Your task to perform on an android device: change your default location settings in chrome Image 0: 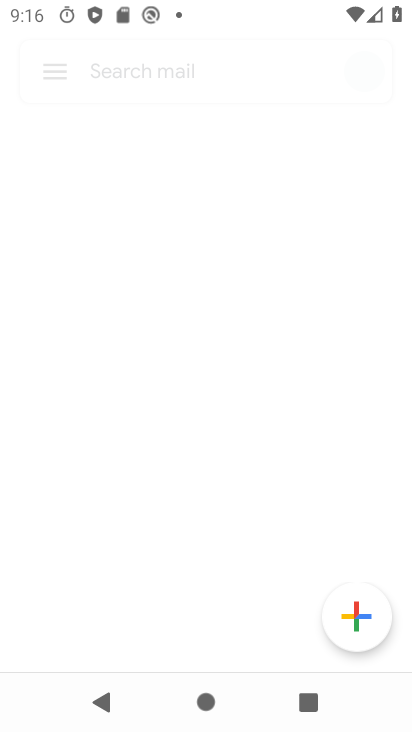
Step 0: drag from (193, 597) to (395, 453)
Your task to perform on an android device: change your default location settings in chrome Image 1: 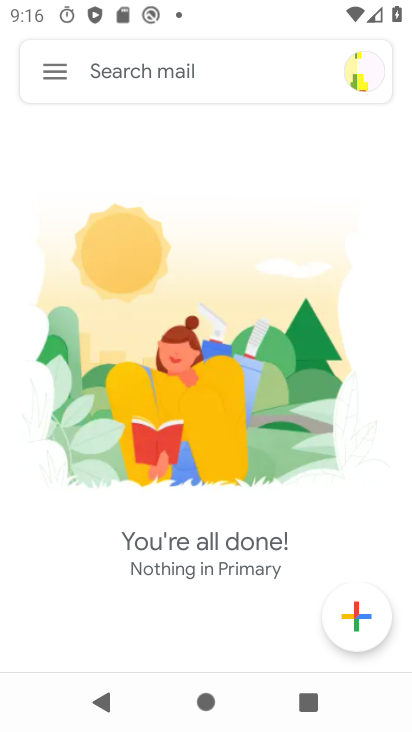
Step 1: press home button
Your task to perform on an android device: change your default location settings in chrome Image 2: 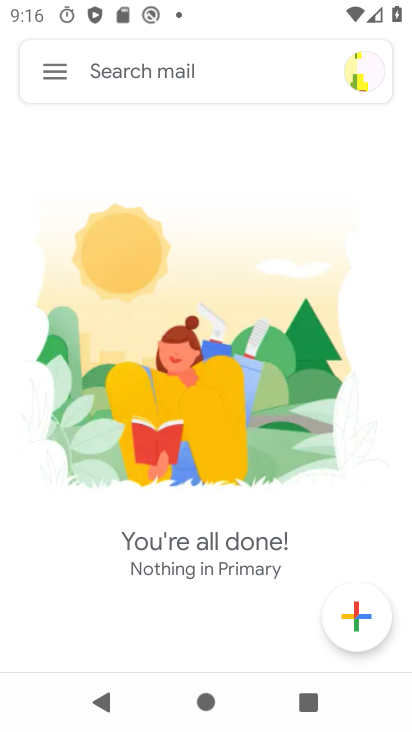
Step 2: click (404, 558)
Your task to perform on an android device: change your default location settings in chrome Image 3: 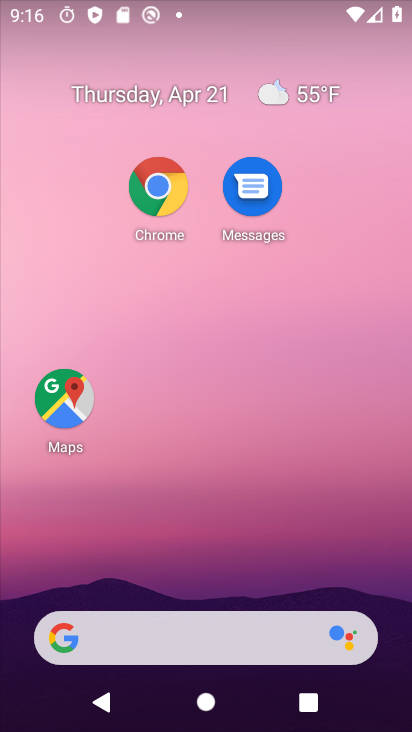
Step 3: click (161, 181)
Your task to perform on an android device: change your default location settings in chrome Image 4: 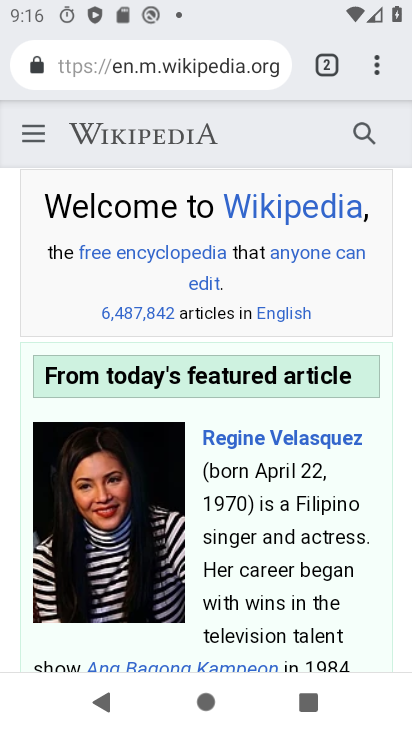
Step 4: click (386, 56)
Your task to perform on an android device: change your default location settings in chrome Image 5: 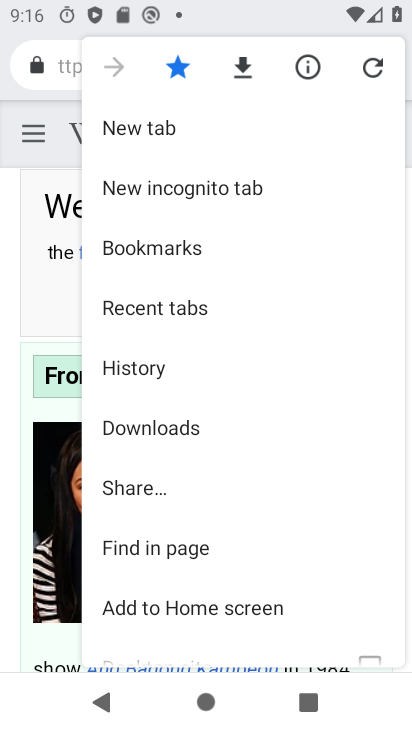
Step 5: drag from (233, 584) to (267, 66)
Your task to perform on an android device: change your default location settings in chrome Image 6: 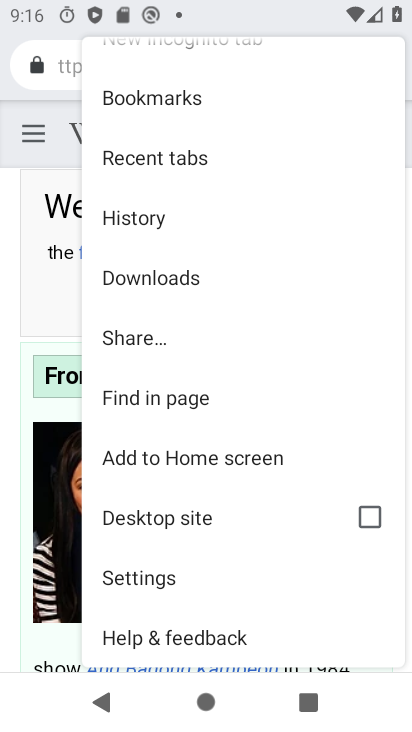
Step 6: click (172, 576)
Your task to perform on an android device: change your default location settings in chrome Image 7: 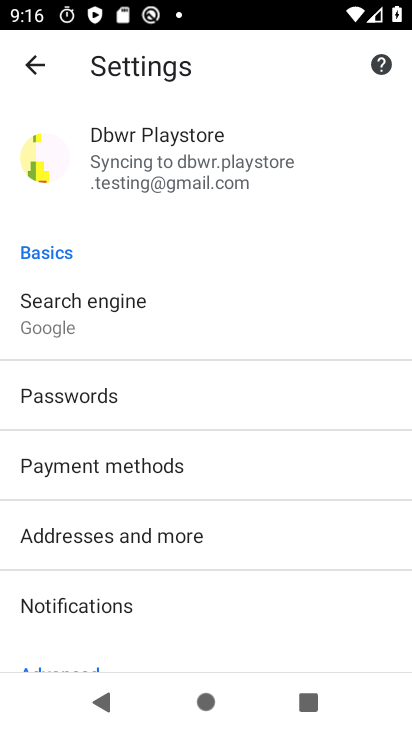
Step 7: drag from (170, 641) to (218, 191)
Your task to perform on an android device: change your default location settings in chrome Image 8: 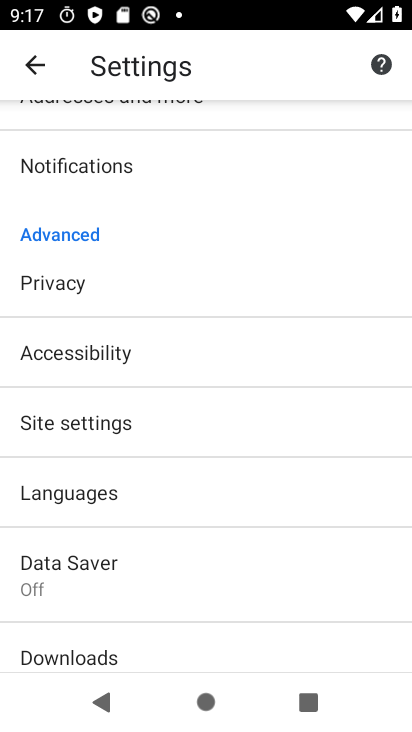
Step 8: drag from (111, 552) to (165, 269)
Your task to perform on an android device: change your default location settings in chrome Image 9: 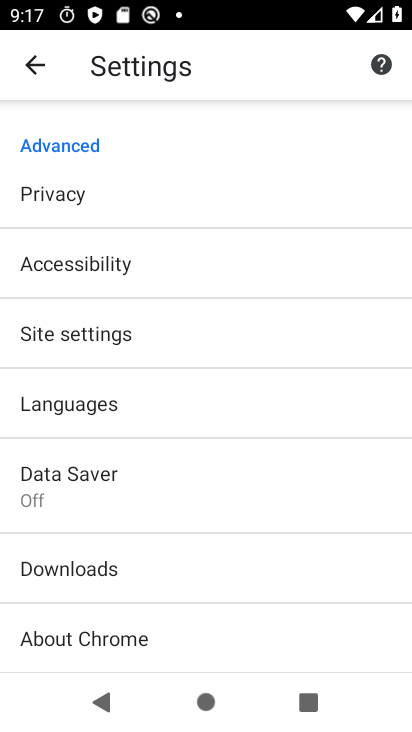
Step 9: click (164, 321)
Your task to perform on an android device: change your default location settings in chrome Image 10: 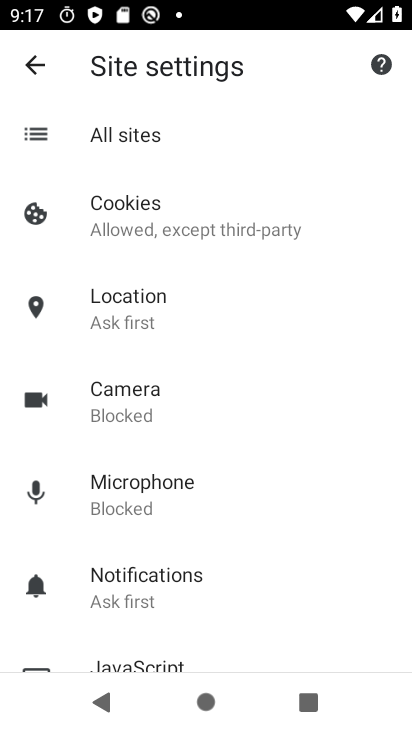
Step 10: click (180, 294)
Your task to perform on an android device: change your default location settings in chrome Image 11: 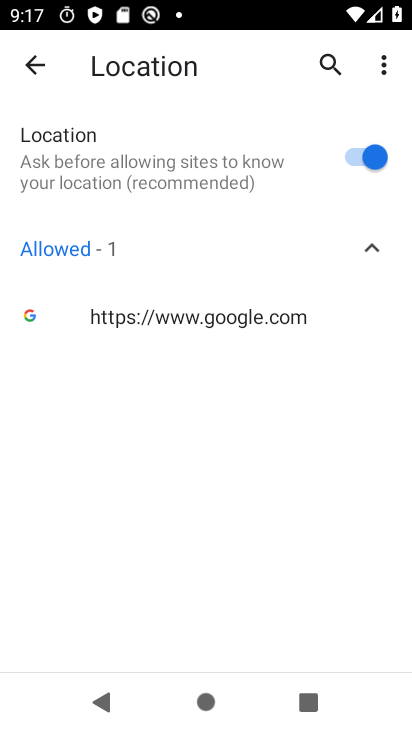
Step 11: click (366, 149)
Your task to perform on an android device: change your default location settings in chrome Image 12: 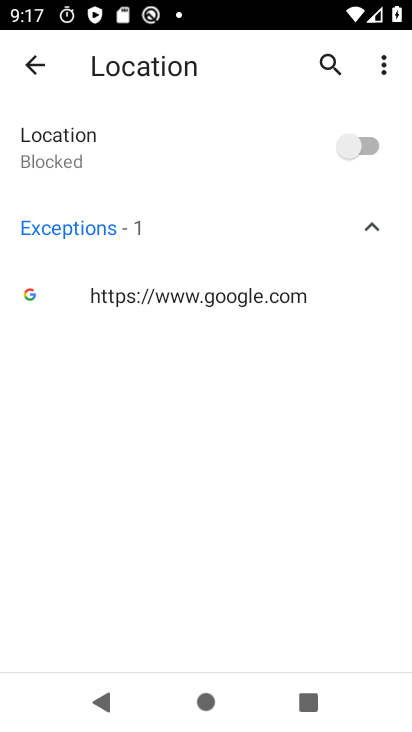
Step 12: task complete